Your task to perform on an android device: turn off javascript in the chrome app Image 0: 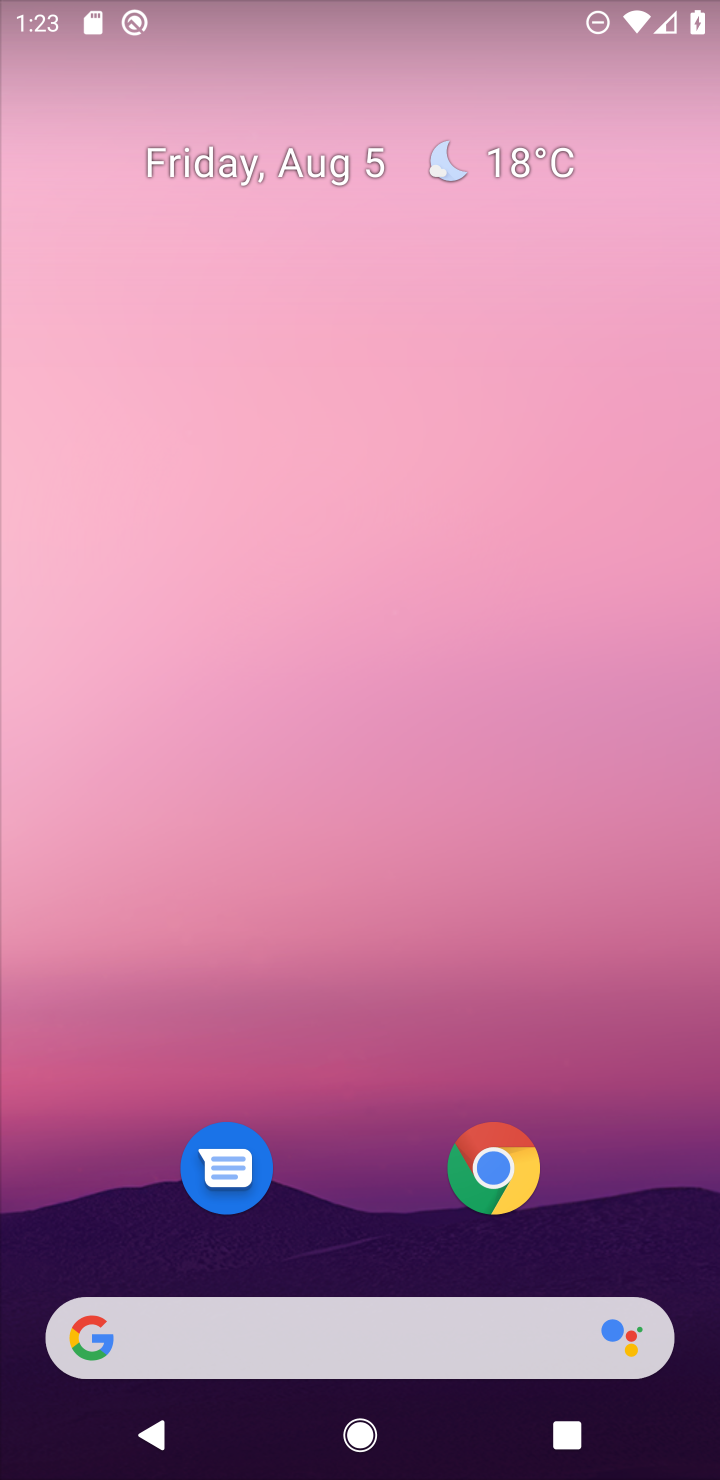
Step 0: click (506, 1177)
Your task to perform on an android device: turn off javascript in the chrome app Image 1: 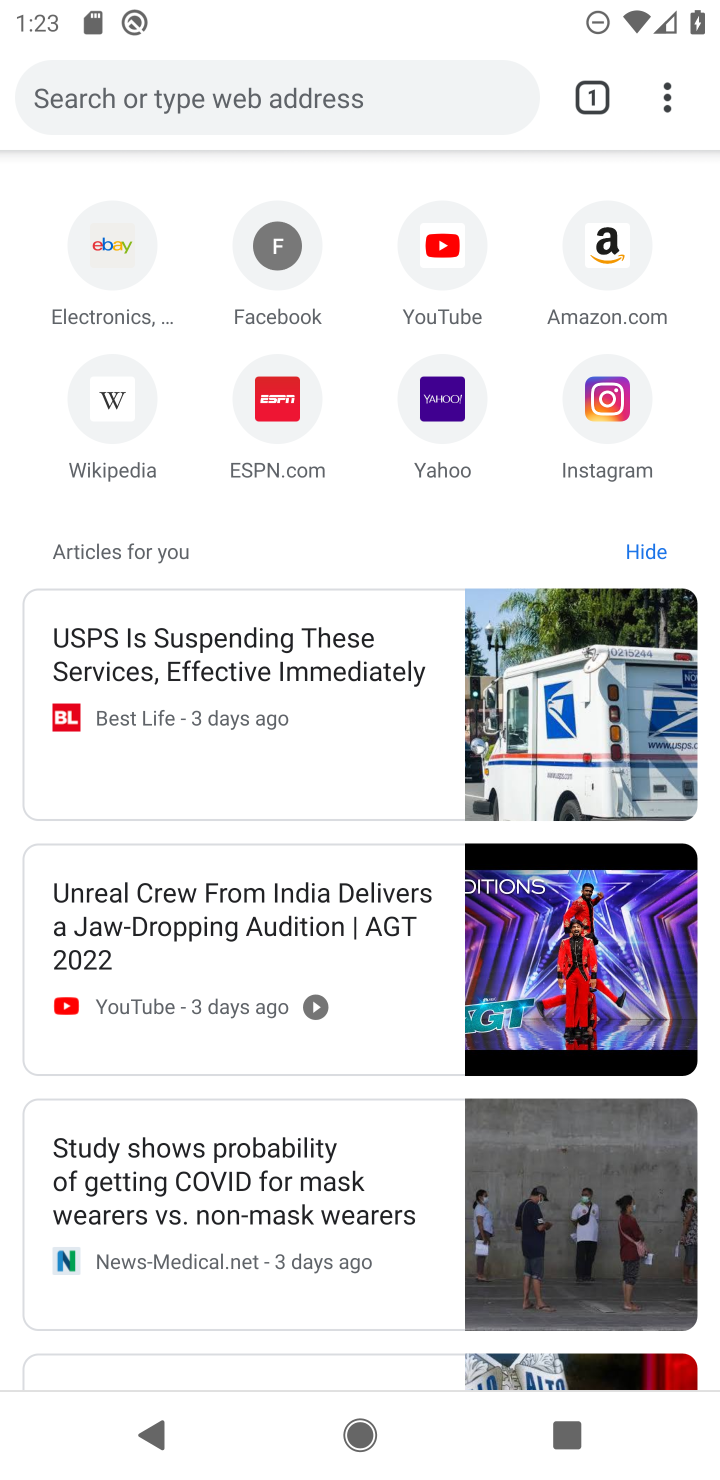
Step 1: drag from (676, 95) to (335, 924)
Your task to perform on an android device: turn off javascript in the chrome app Image 2: 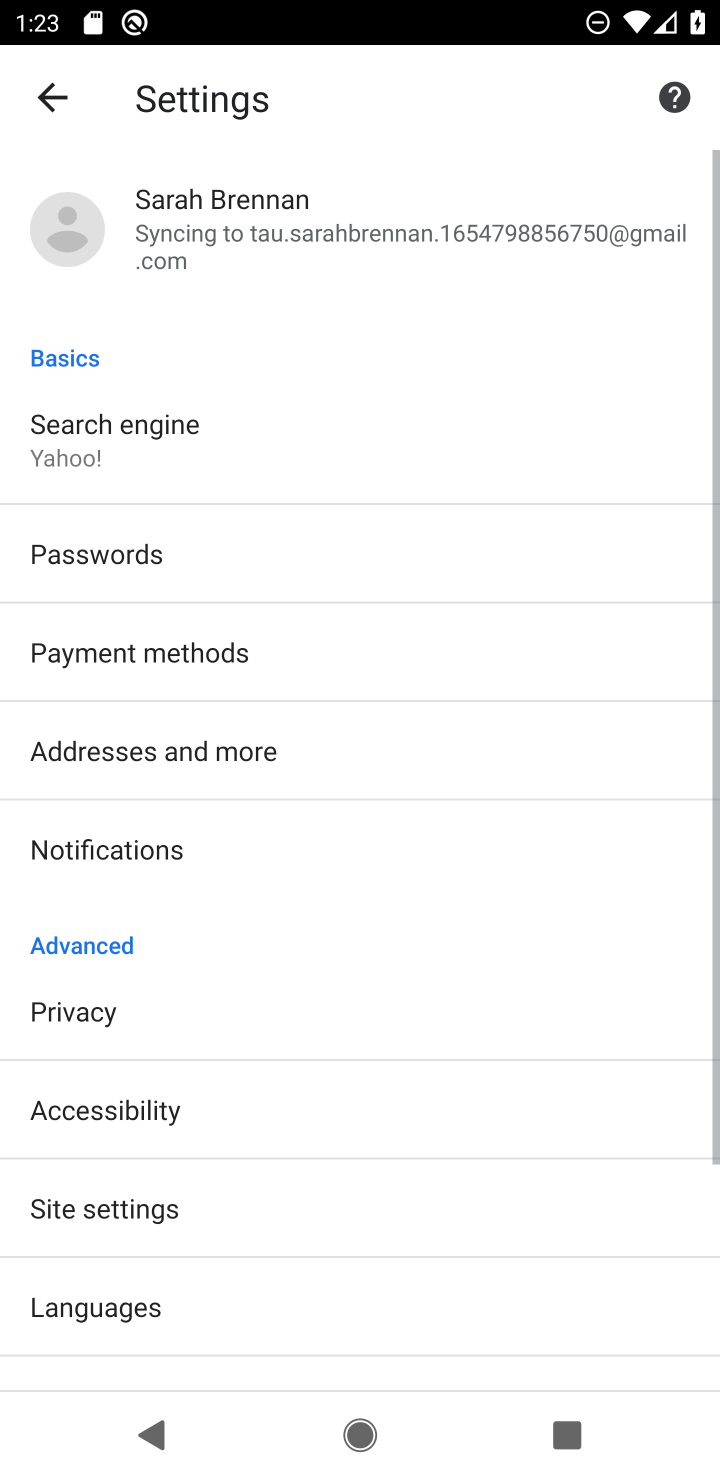
Step 2: drag from (246, 1267) to (395, 346)
Your task to perform on an android device: turn off javascript in the chrome app Image 3: 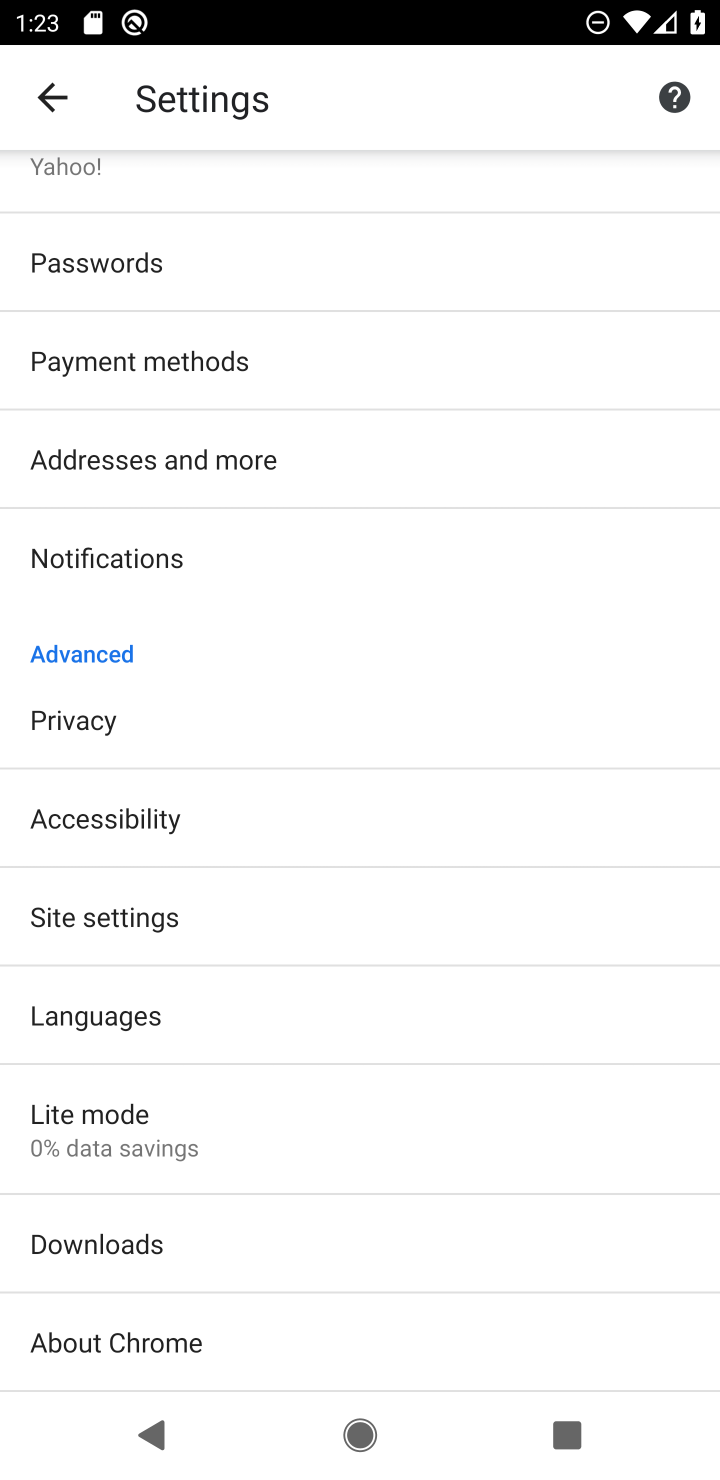
Step 3: click (157, 916)
Your task to perform on an android device: turn off javascript in the chrome app Image 4: 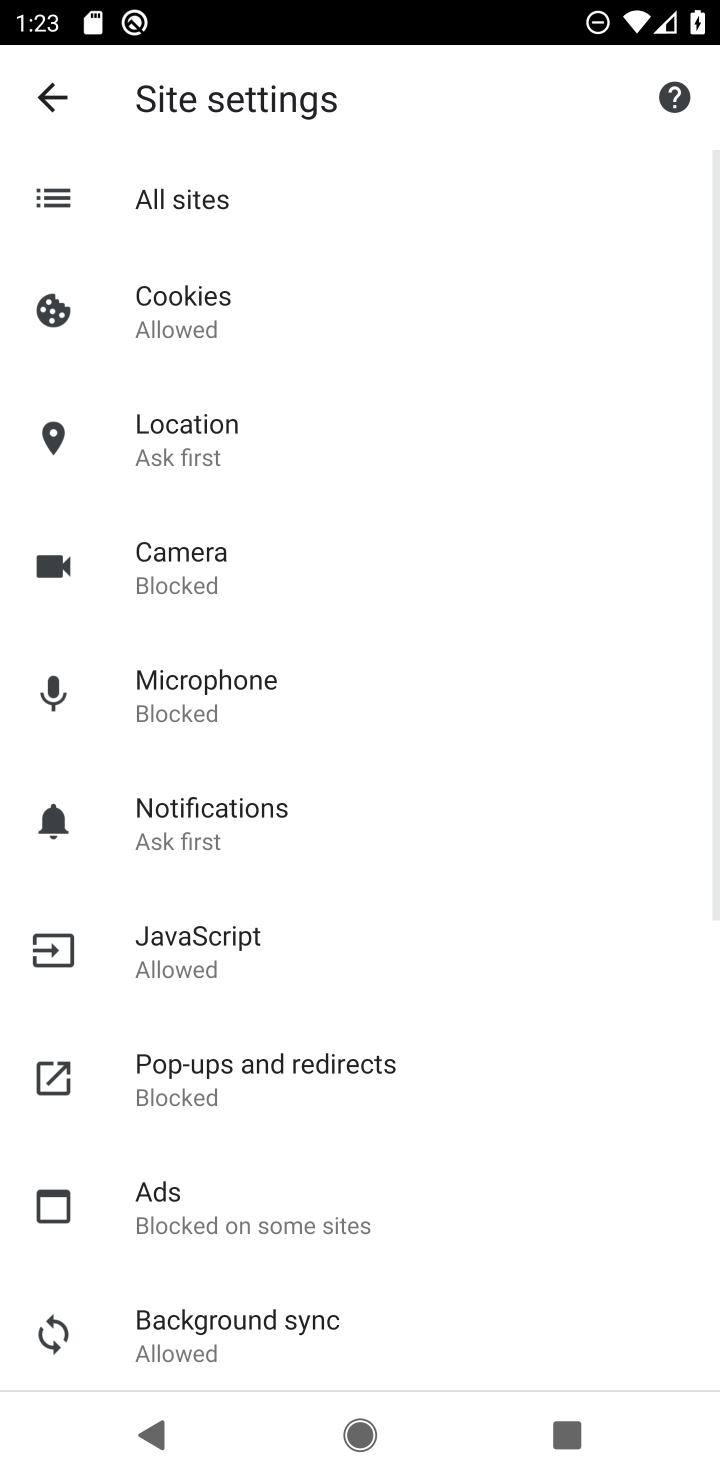
Step 4: click (198, 947)
Your task to perform on an android device: turn off javascript in the chrome app Image 5: 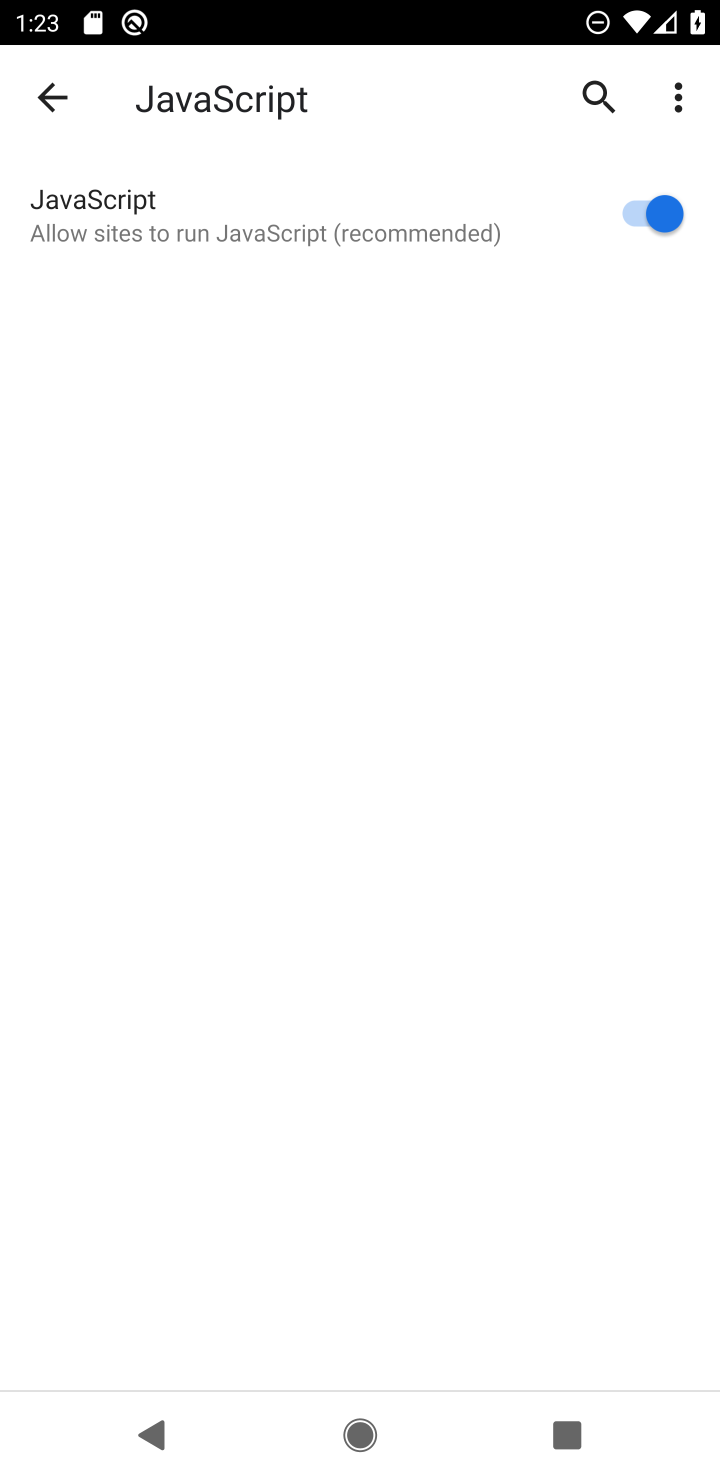
Step 5: click (651, 207)
Your task to perform on an android device: turn off javascript in the chrome app Image 6: 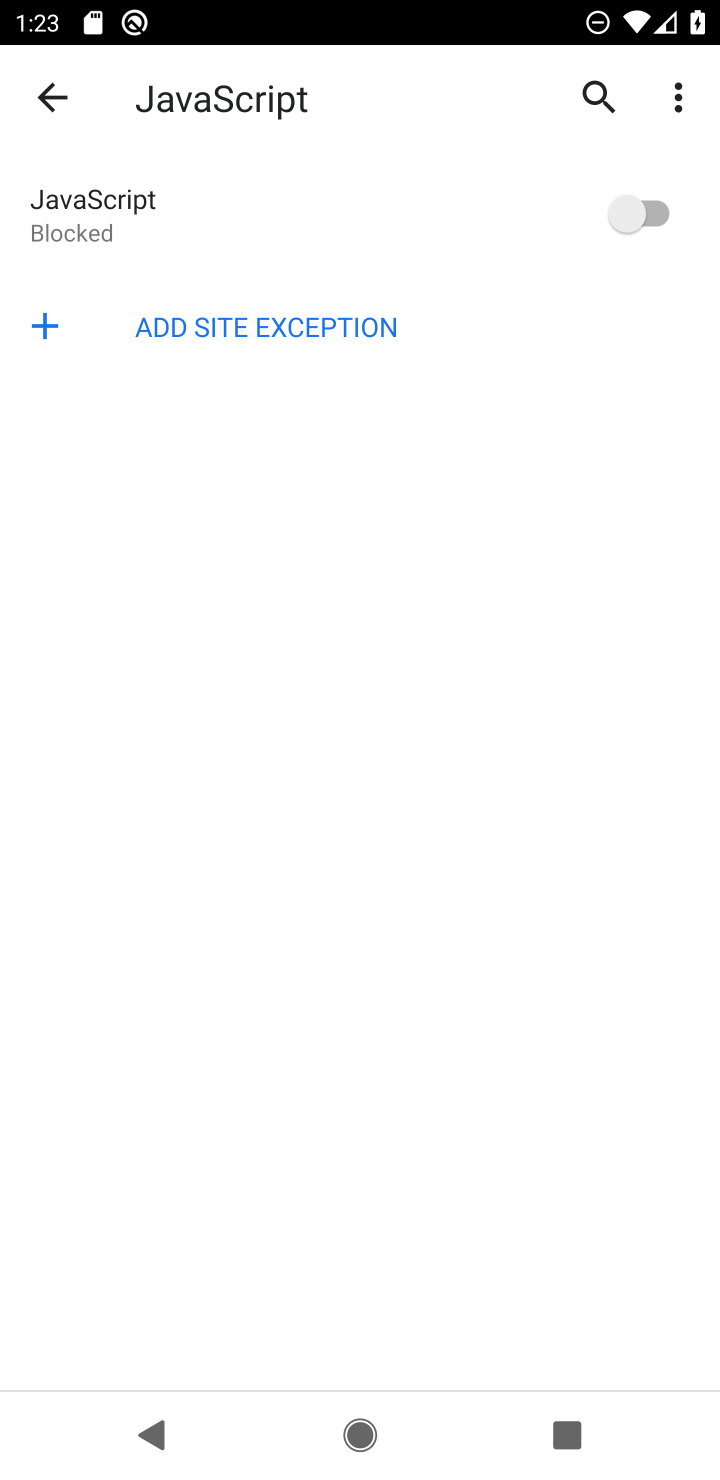
Step 6: task complete